Your task to perform on an android device: Search for seafood restaurants on Google Maps Image 0: 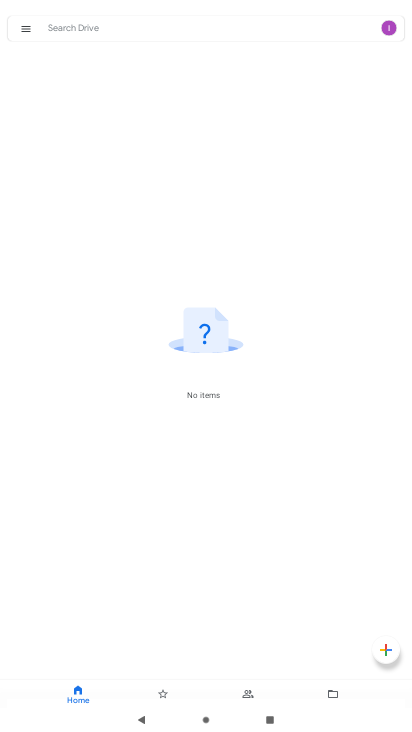
Step 0: press home button
Your task to perform on an android device: Search for seafood restaurants on Google Maps Image 1: 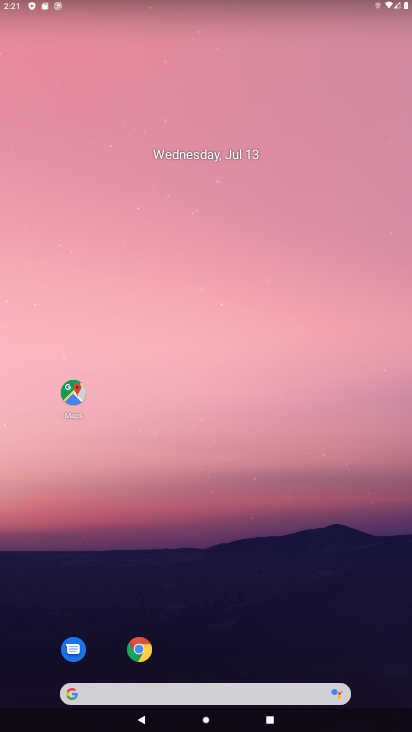
Step 1: click (72, 393)
Your task to perform on an android device: Search for seafood restaurants on Google Maps Image 2: 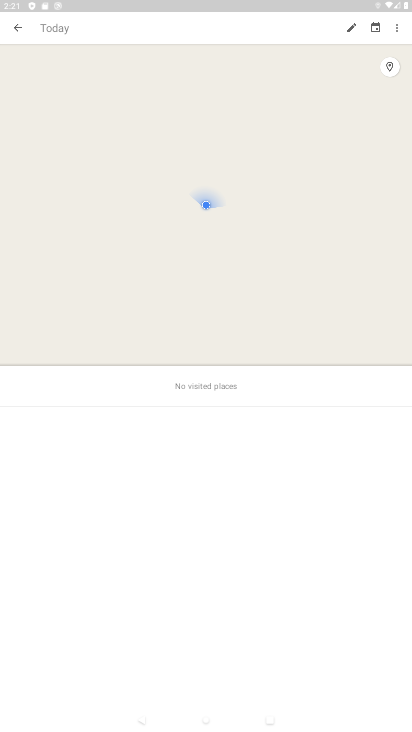
Step 2: click (16, 23)
Your task to perform on an android device: Search for seafood restaurants on Google Maps Image 3: 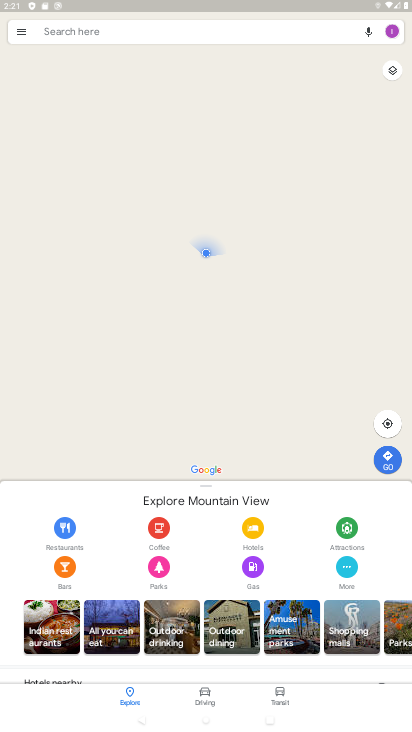
Step 3: click (62, 26)
Your task to perform on an android device: Search for seafood restaurants on Google Maps Image 4: 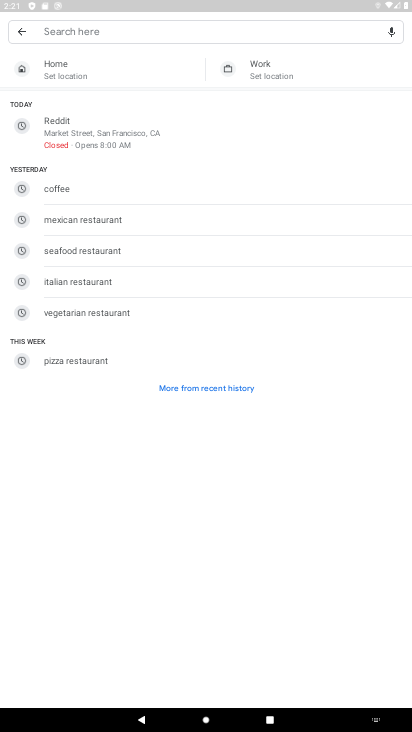
Step 4: click (80, 248)
Your task to perform on an android device: Search for seafood restaurants on Google Maps Image 5: 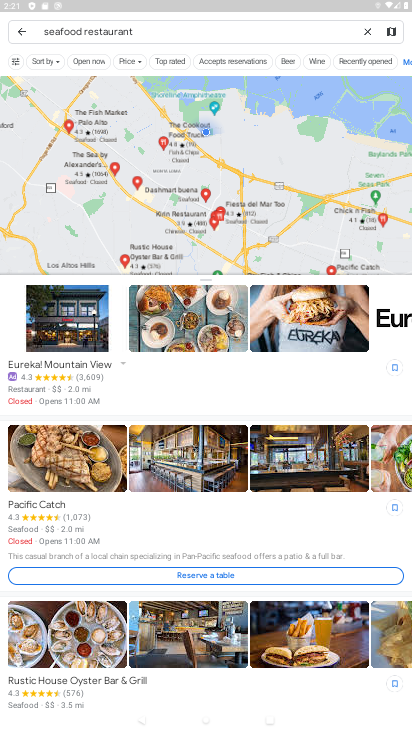
Step 5: task complete